Your task to perform on an android device: open app "Messenger Lite" (install if not already installed) Image 0: 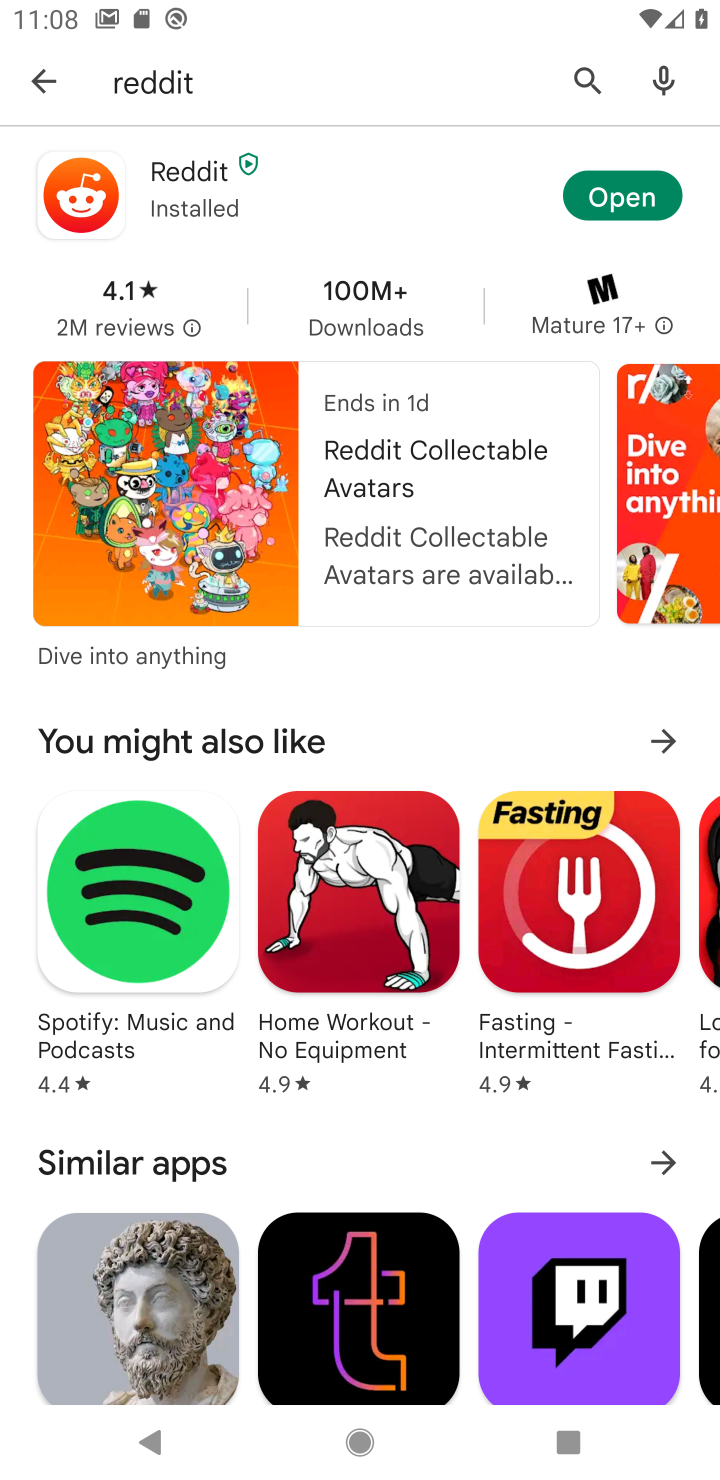
Step 0: press back button
Your task to perform on an android device: open app "Messenger Lite" (install if not already installed) Image 1: 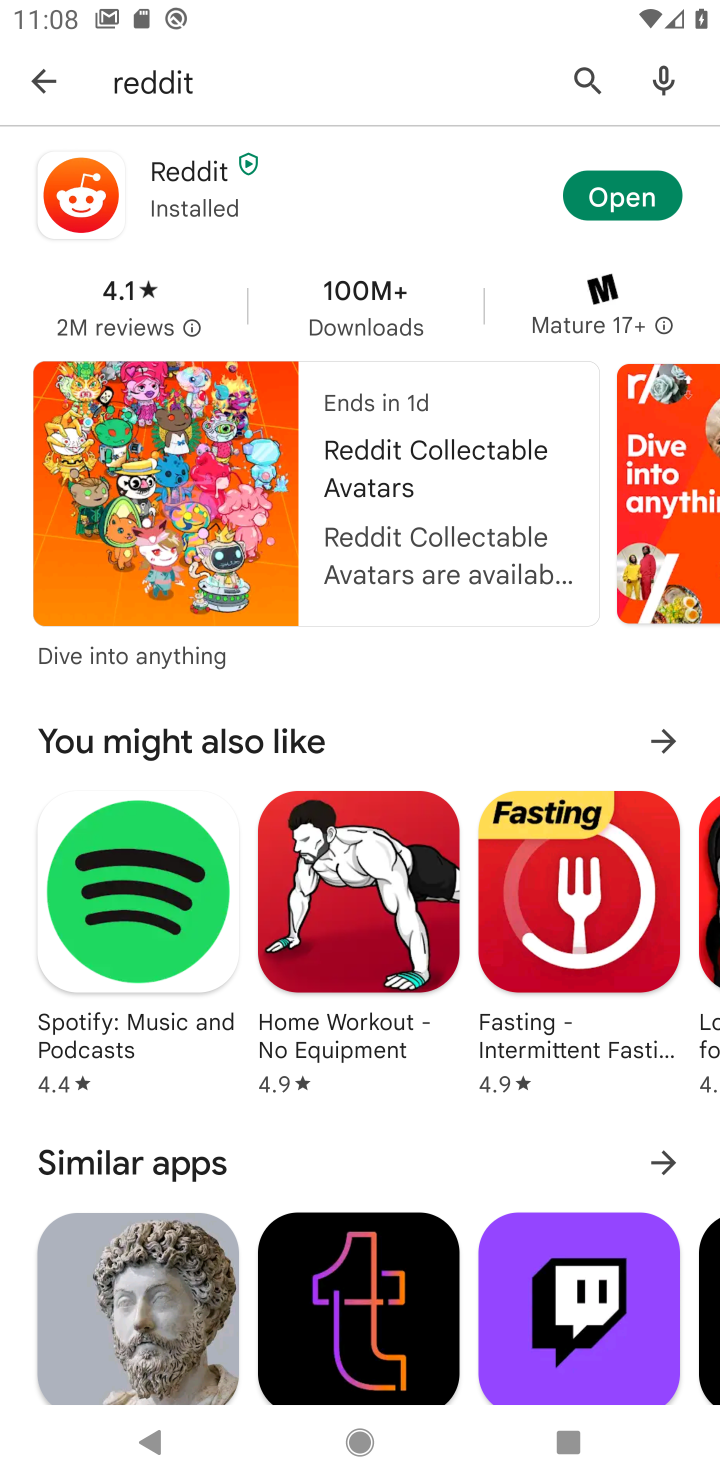
Step 1: drag from (369, 249) to (352, 139)
Your task to perform on an android device: open app "Messenger Lite" (install if not already installed) Image 2: 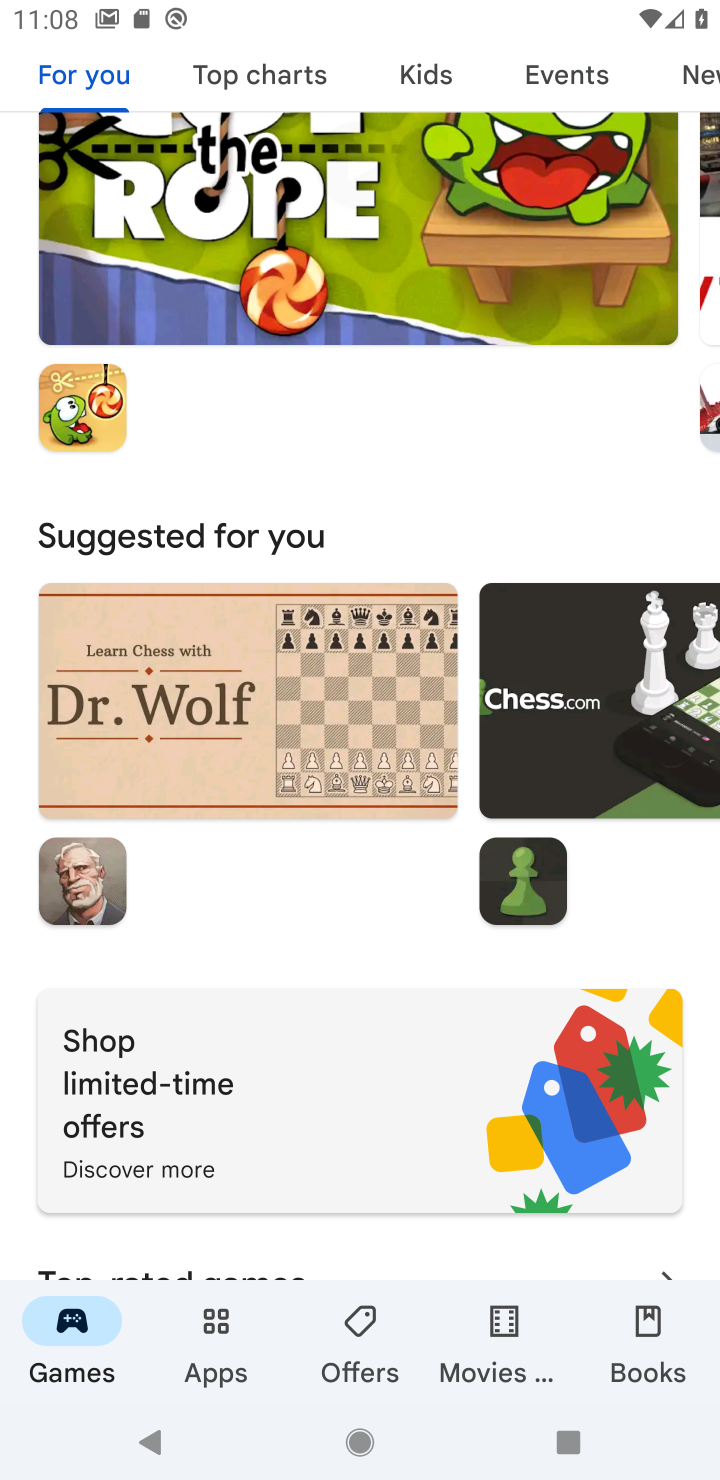
Step 2: drag from (283, 448) to (453, 1032)
Your task to perform on an android device: open app "Messenger Lite" (install if not already installed) Image 3: 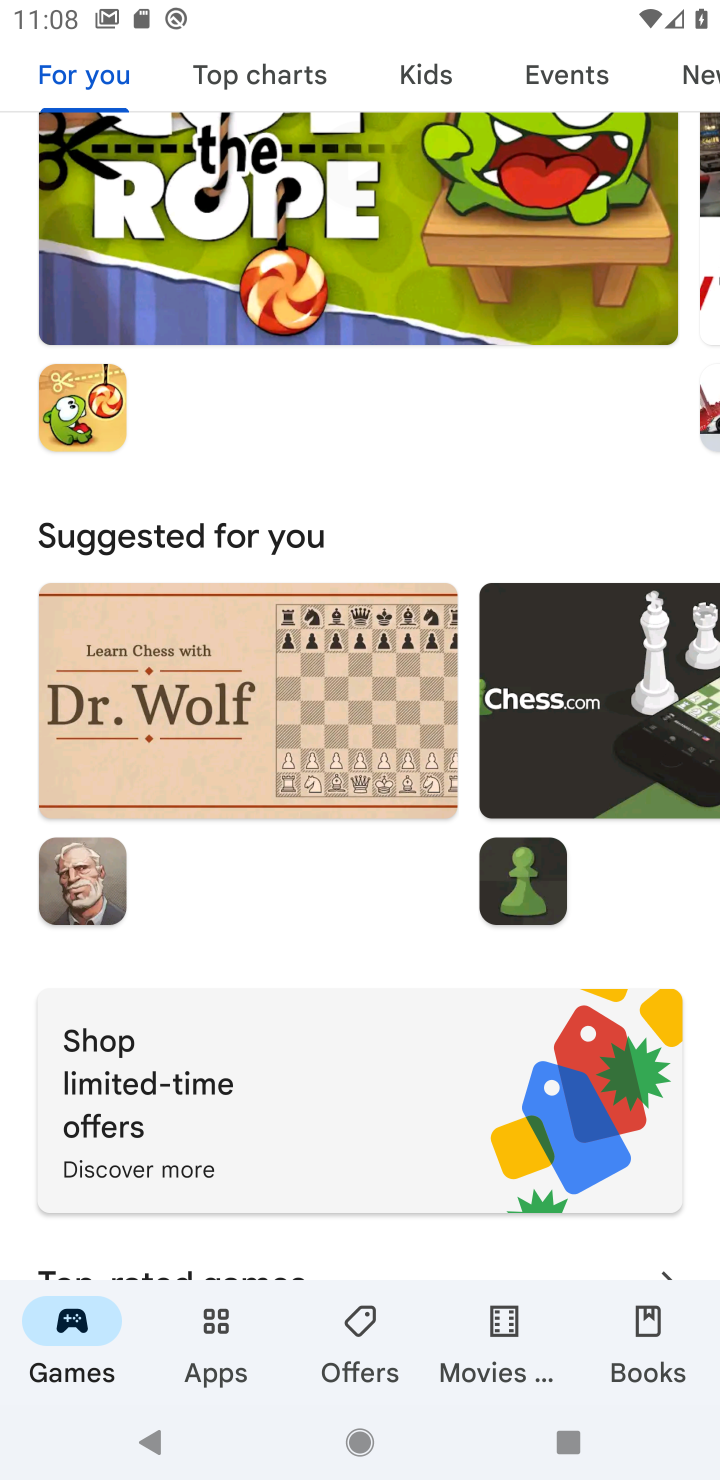
Step 3: drag from (227, 1008) to (386, 1036)
Your task to perform on an android device: open app "Messenger Lite" (install if not already installed) Image 4: 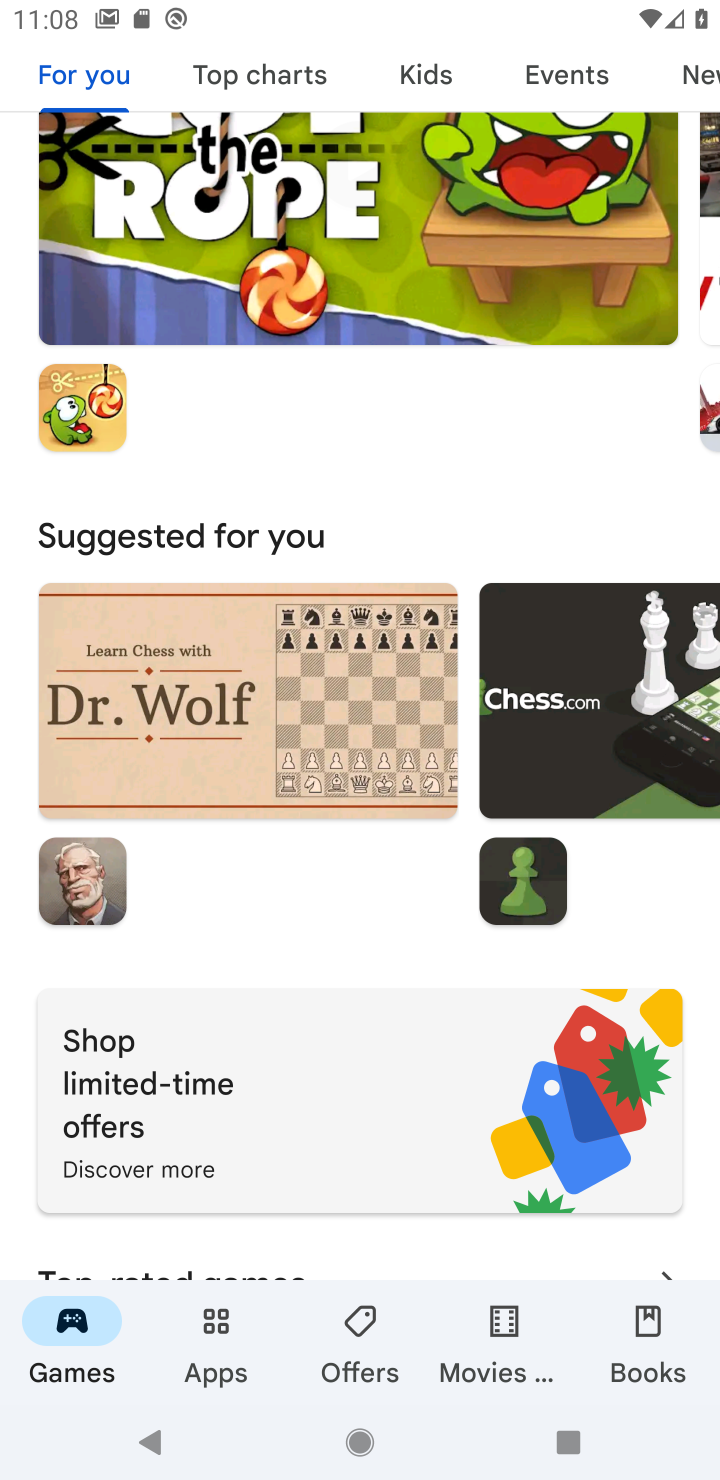
Step 4: drag from (312, 363) to (420, 1151)
Your task to perform on an android device: open app "Messenger Lite" (install if not already installed) Image 5: 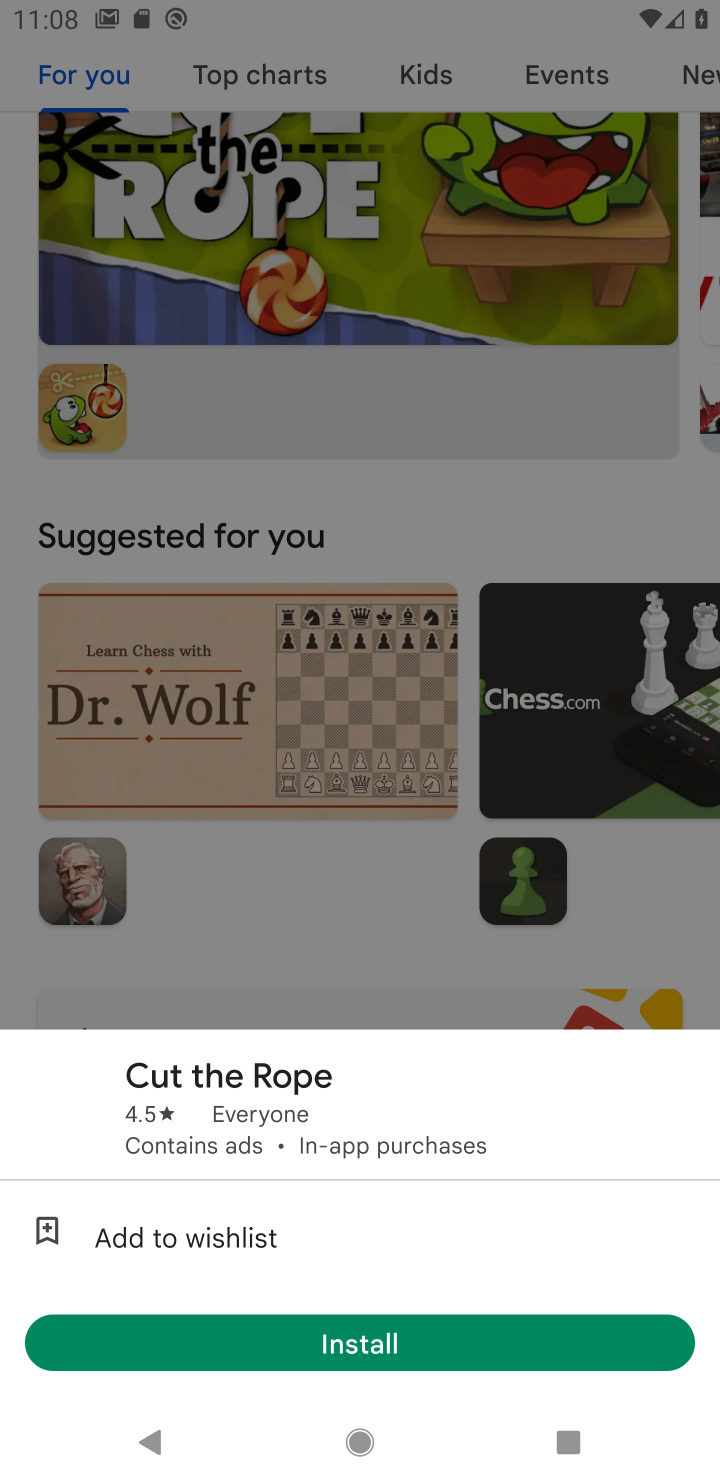
Step 5: drag from (471, 1381) to (366, 1413)
Your task to perform on an android device: open app "Messenger Lite" (install if not already installed) Image 6: 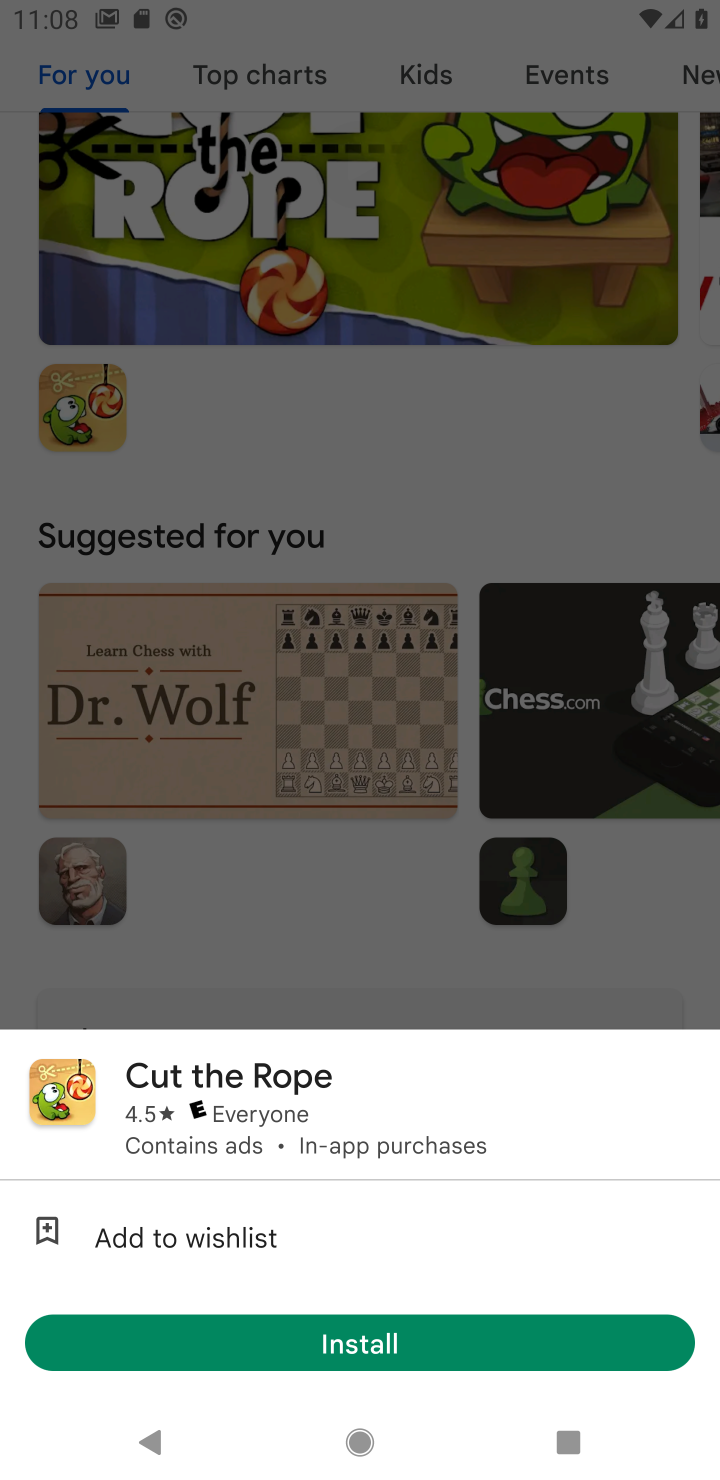
Step 6: click (227, 519)
Your task to perform on an android device: open app "Messenger Lite" (install if not already installed) Image 7: 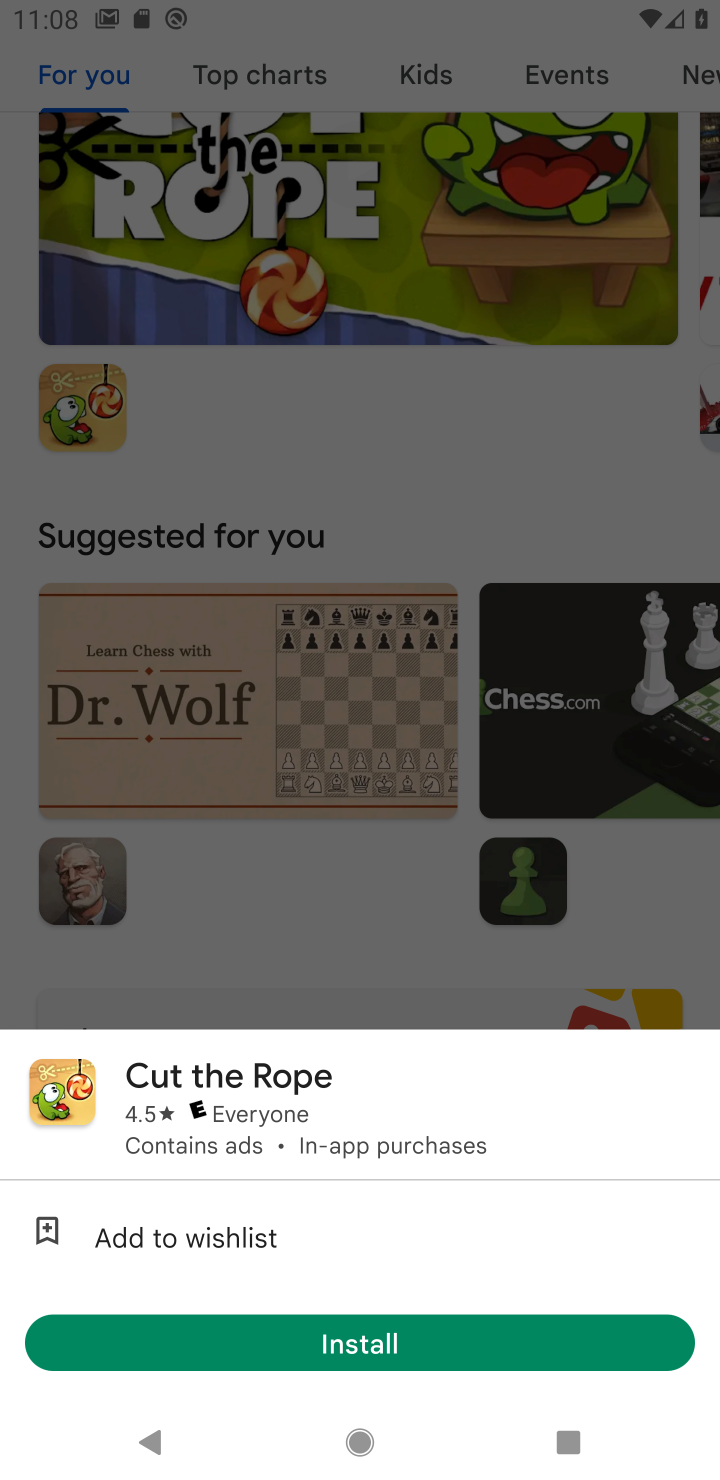
Step 7: drag from (252, 511) to (381, 993)
Your task to perform on an android device: open app "Messenger Lite" (install if not already installed) Image 8: 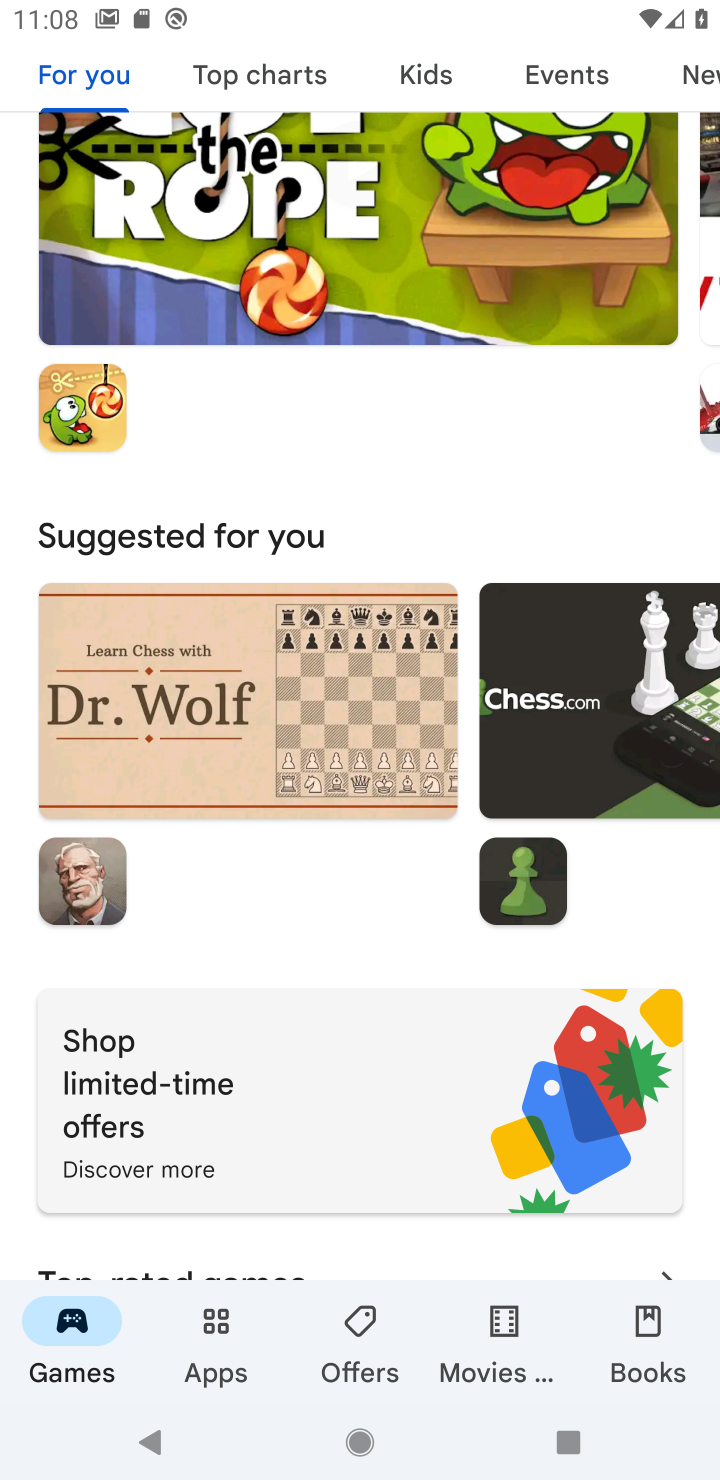
Step 8: click (429, 903)
Your task to perform on an android device: open app "Messenger Lite" (install if not already installed) Image 9: 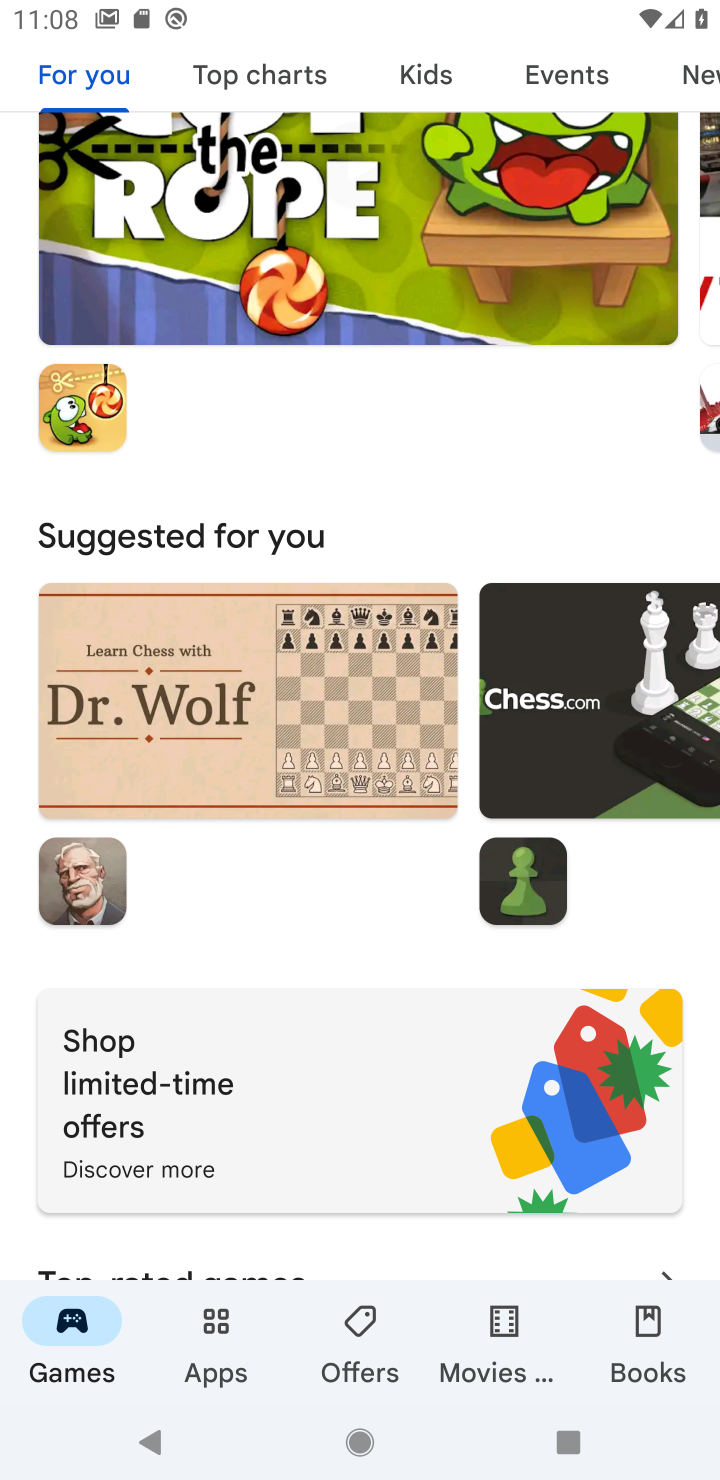
Step 9: drag from (358, 673) to (255, 865)
Your task to perform on an android device: open app "Messenger Lite" (install if not already installed) Image 10: 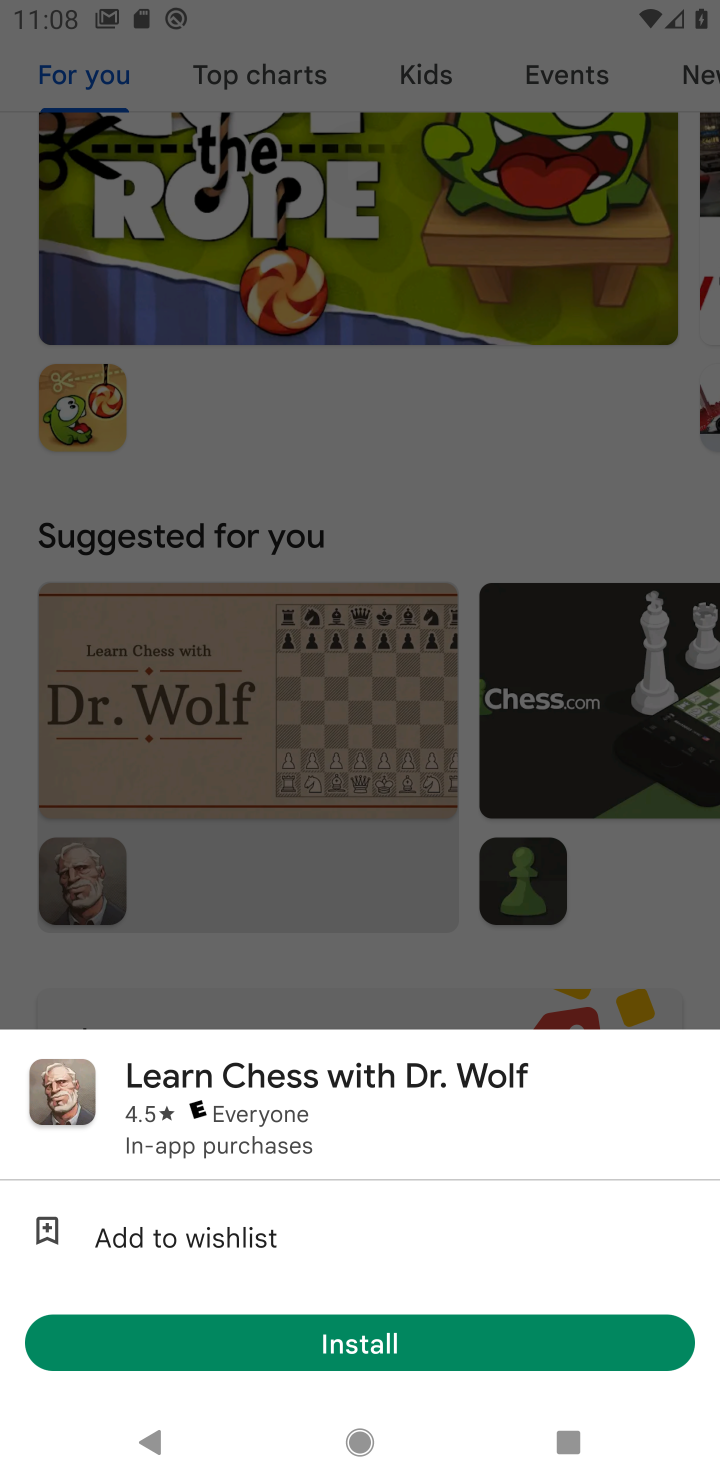
Step 10: click (221, 443)
Your task to perform on an android device: open app "Messenger Lite" (install if not already installed) Image 11: 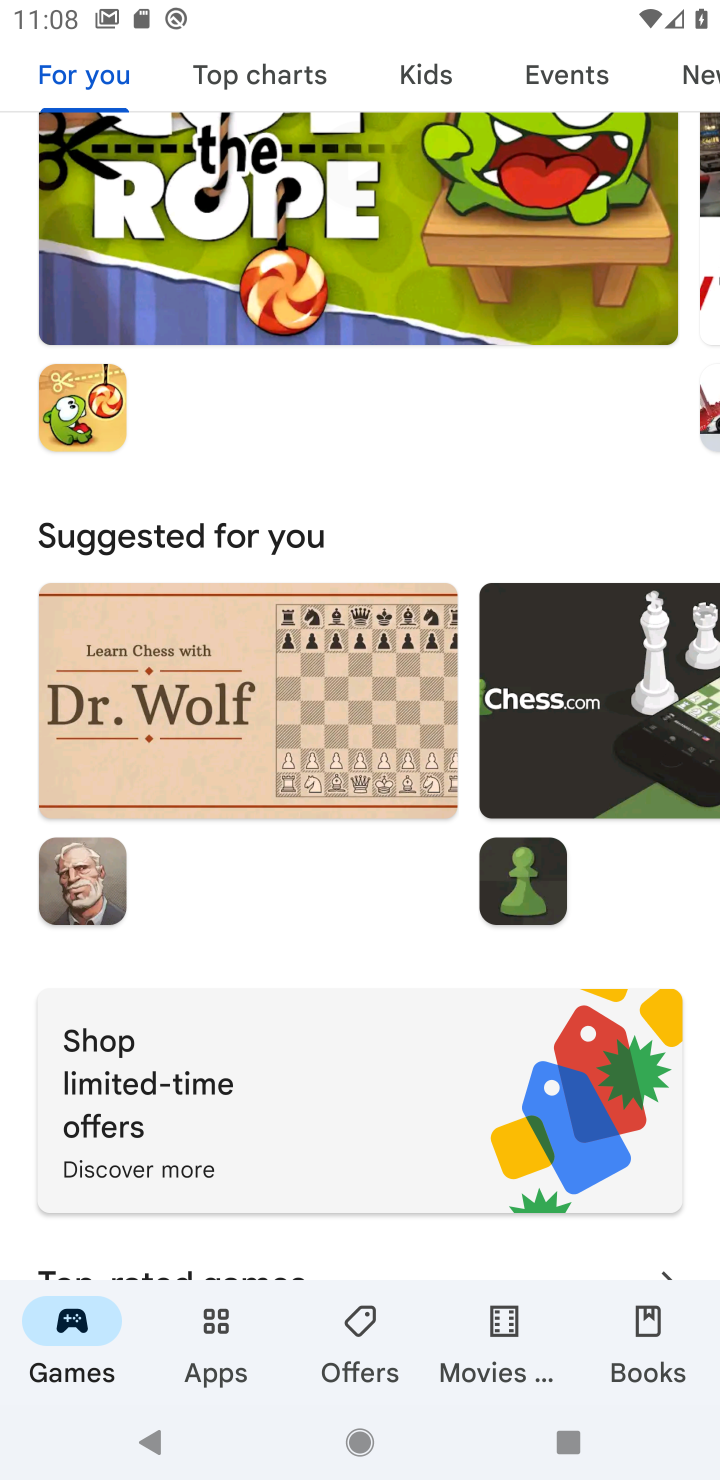
Step 11: drag from (287, 273) to (325, 746)
Your task to perform on an android device: open app "Messenger Lite" (install if not already installed) Image 12: 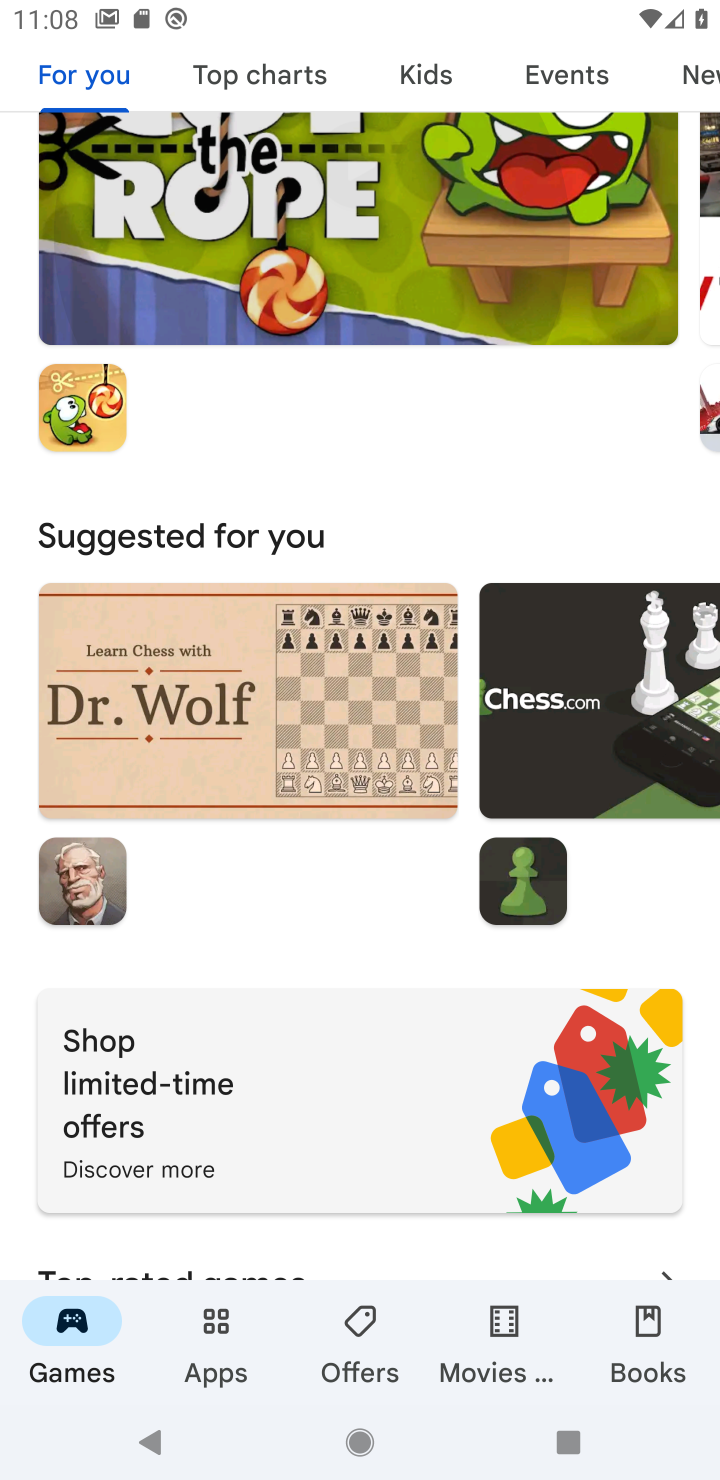
Step 12: drag from (217, 397) to (309, 728)
Your task to perform on an android device: open app "Messenger Lite" (install if not already installed) Image 13: 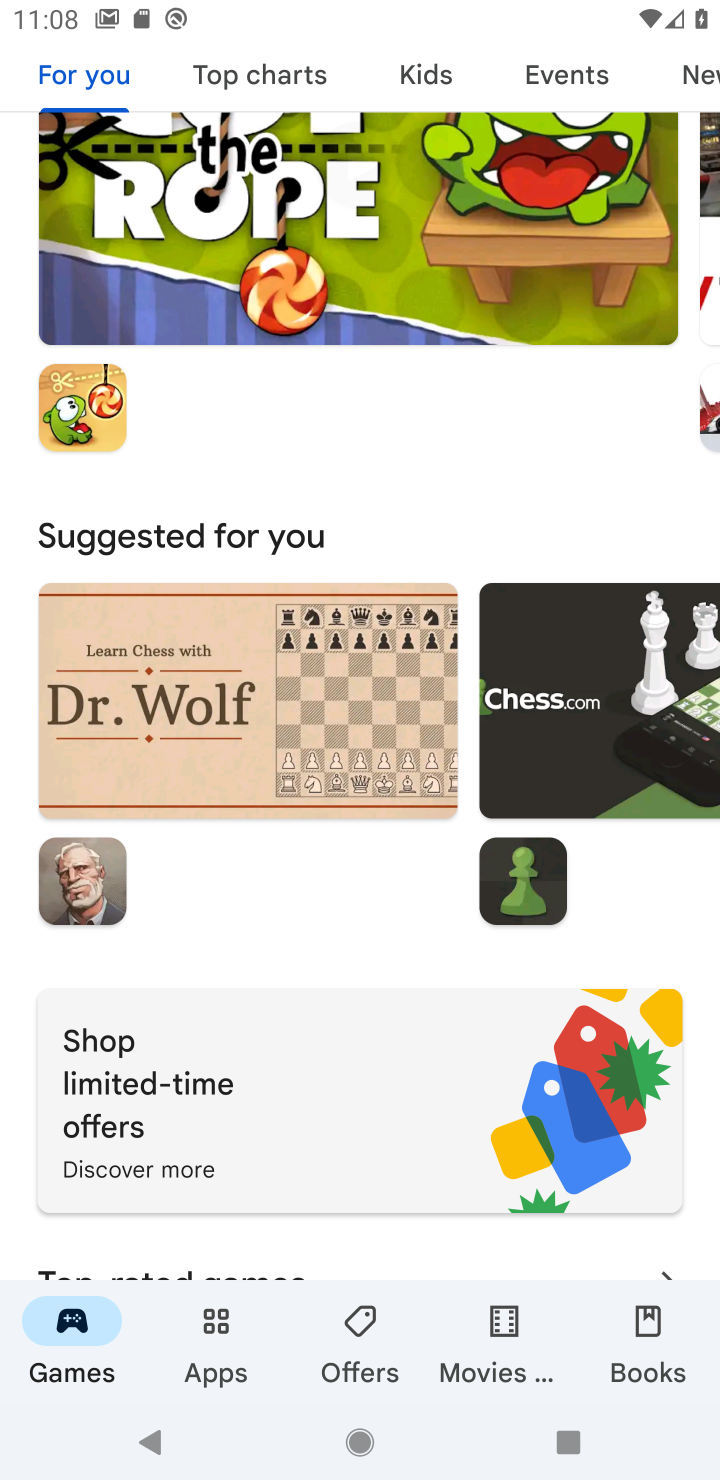
Step 13: drag from (189, 959) to (280, 1002)
Your task to perform on an android device: open app "Messenger Lite" (install if not already installed) Image 14: 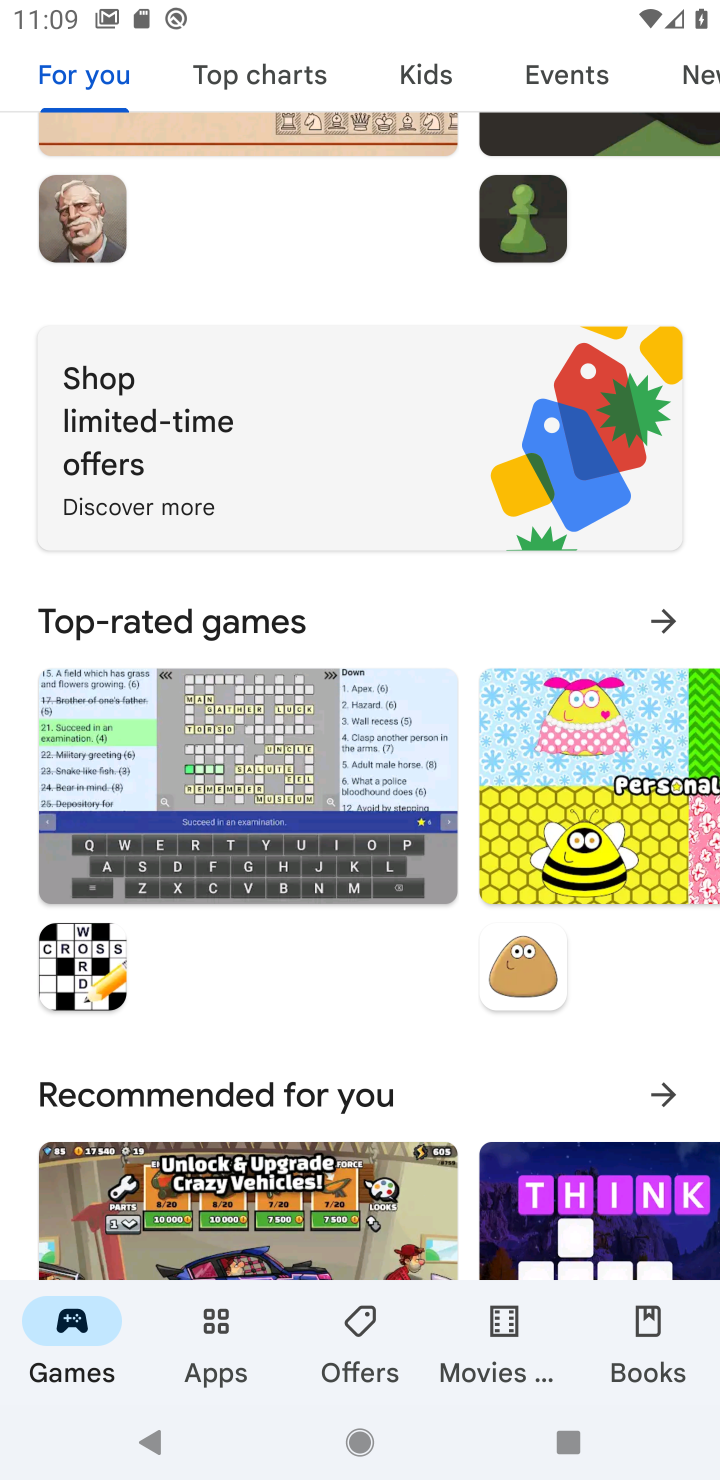
Step 14: drag from (160, 766) to (218, 1020)
Your task to perform on an android device: open app "Messenger Lite" (install if not already installed) Image 15: 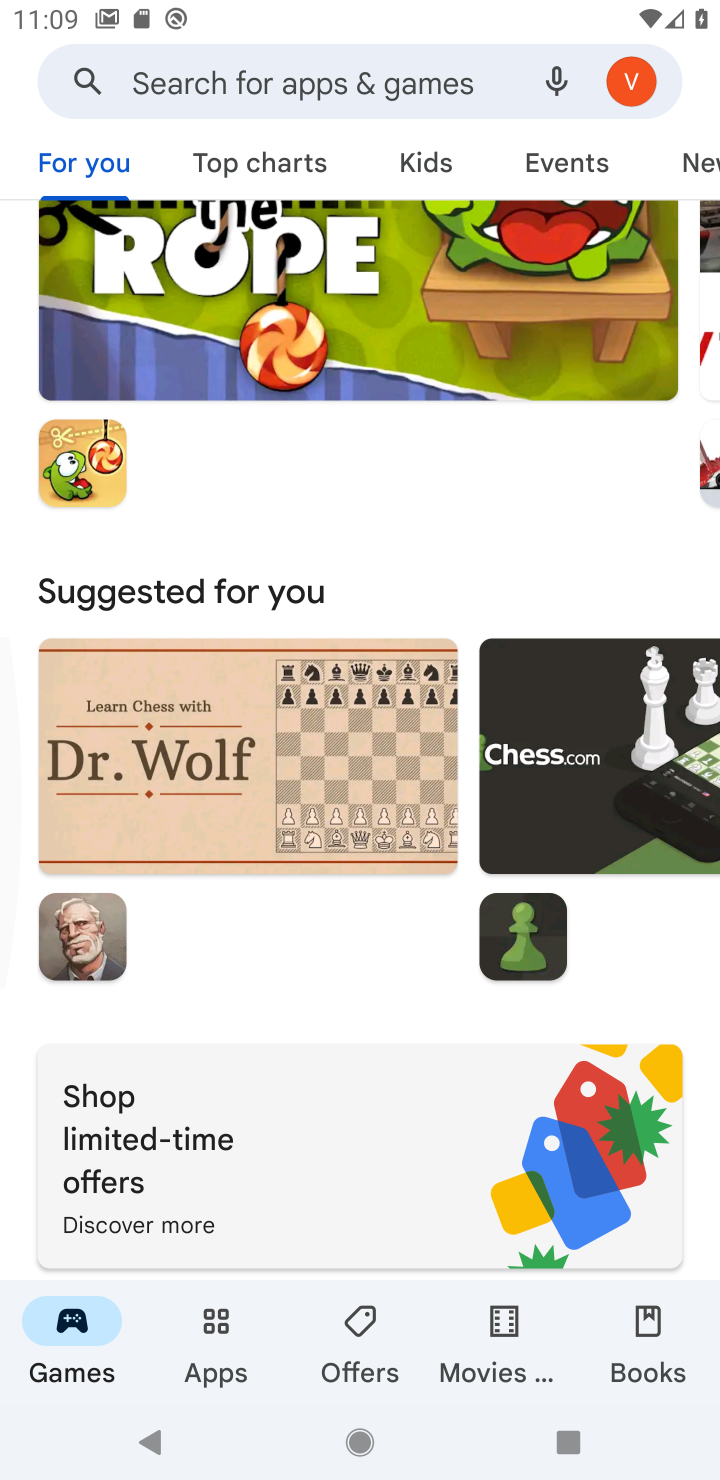
Step 15: click (192, 918)
Your task to perform on an android device: open app "Messenger Lite" (install if not already installed) Image 16: 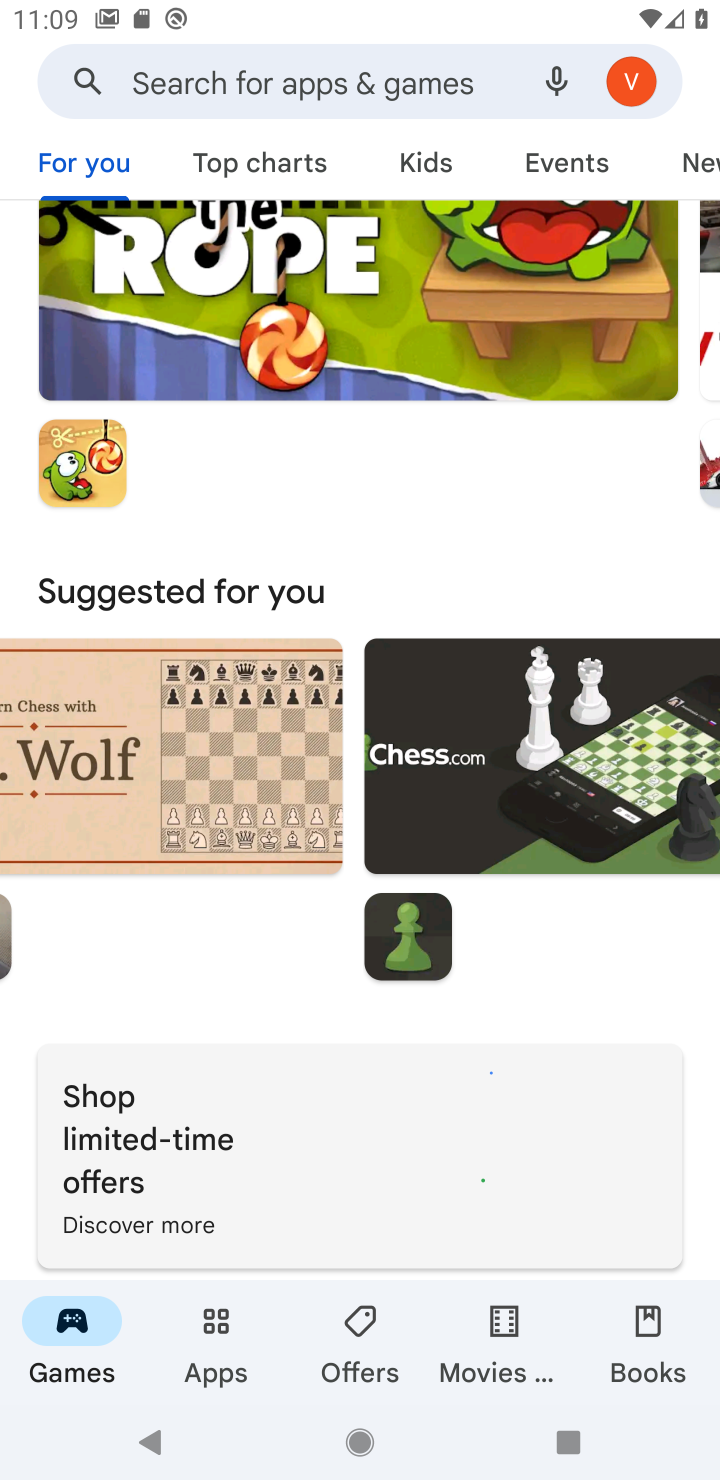
Step 16: click (177, 74)
Your task to perform on an android device: open app "Messenger Lite" (install if not already installed) Image 17: 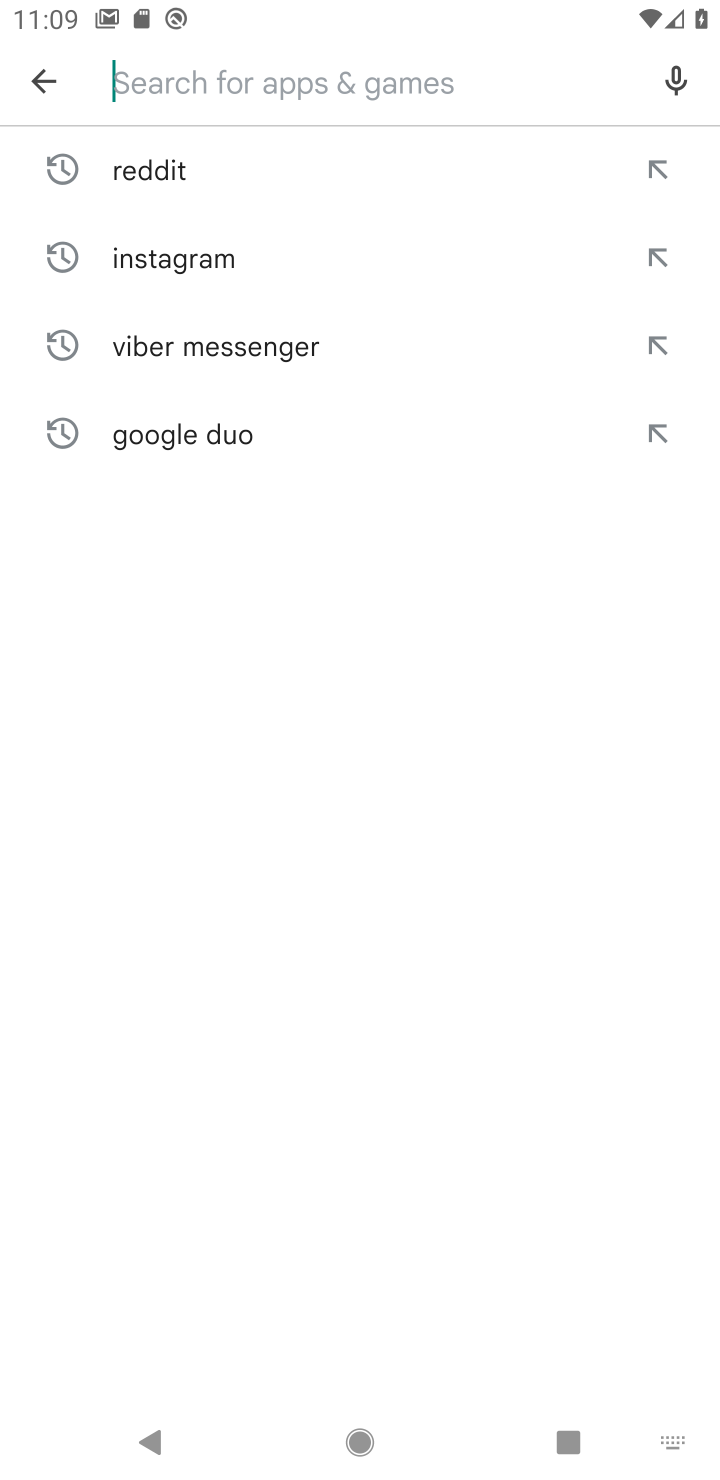
Step 17: click (203, 76)
Your task to perform on an android device: open app "Messenger Lite" (install if not already installed) Image 18: 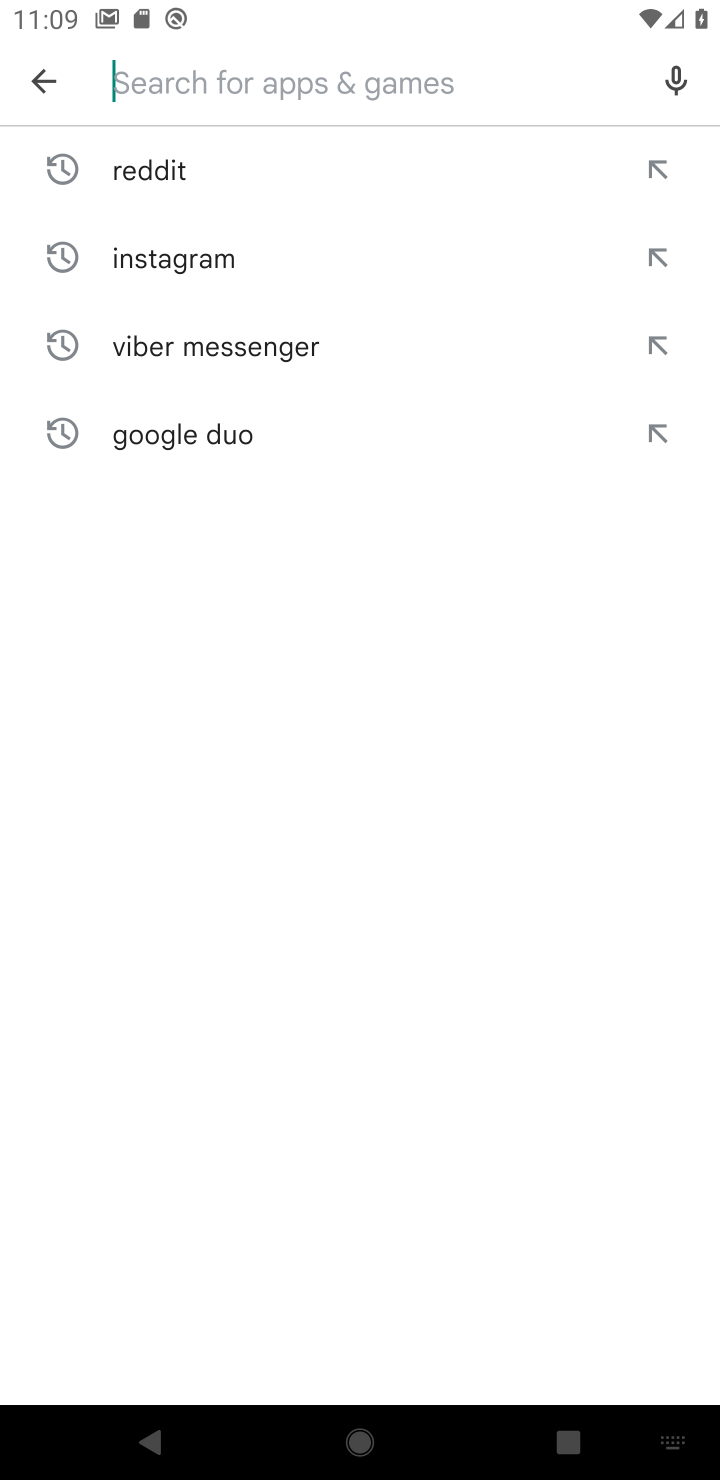
Step 18: type "messenger"
Your task to perform on an android device: open app "Messenger Lite" (install if not already installed) Image 19: 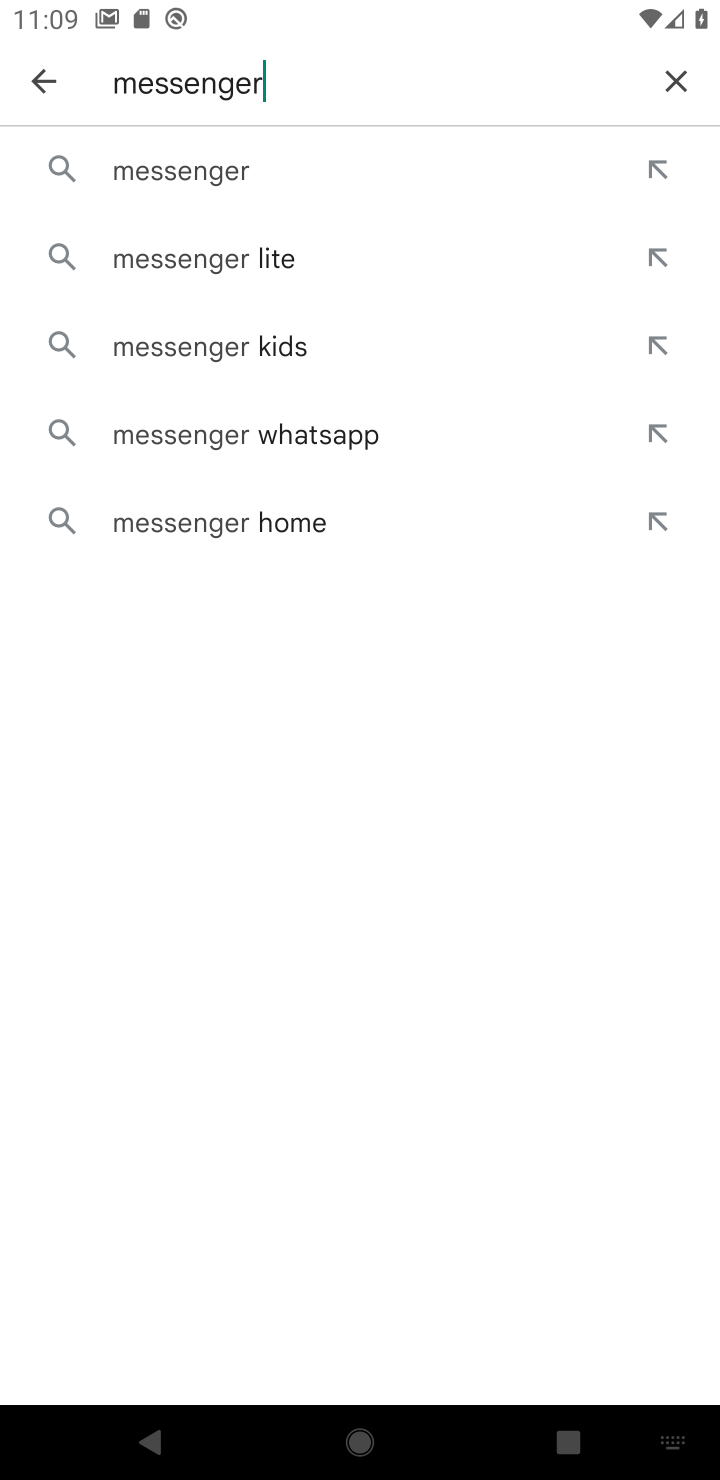
Step 19: click (204, 248)
Your task to perform on an android device: open app "Messenger Lite" (install if not already installed) Image 20: 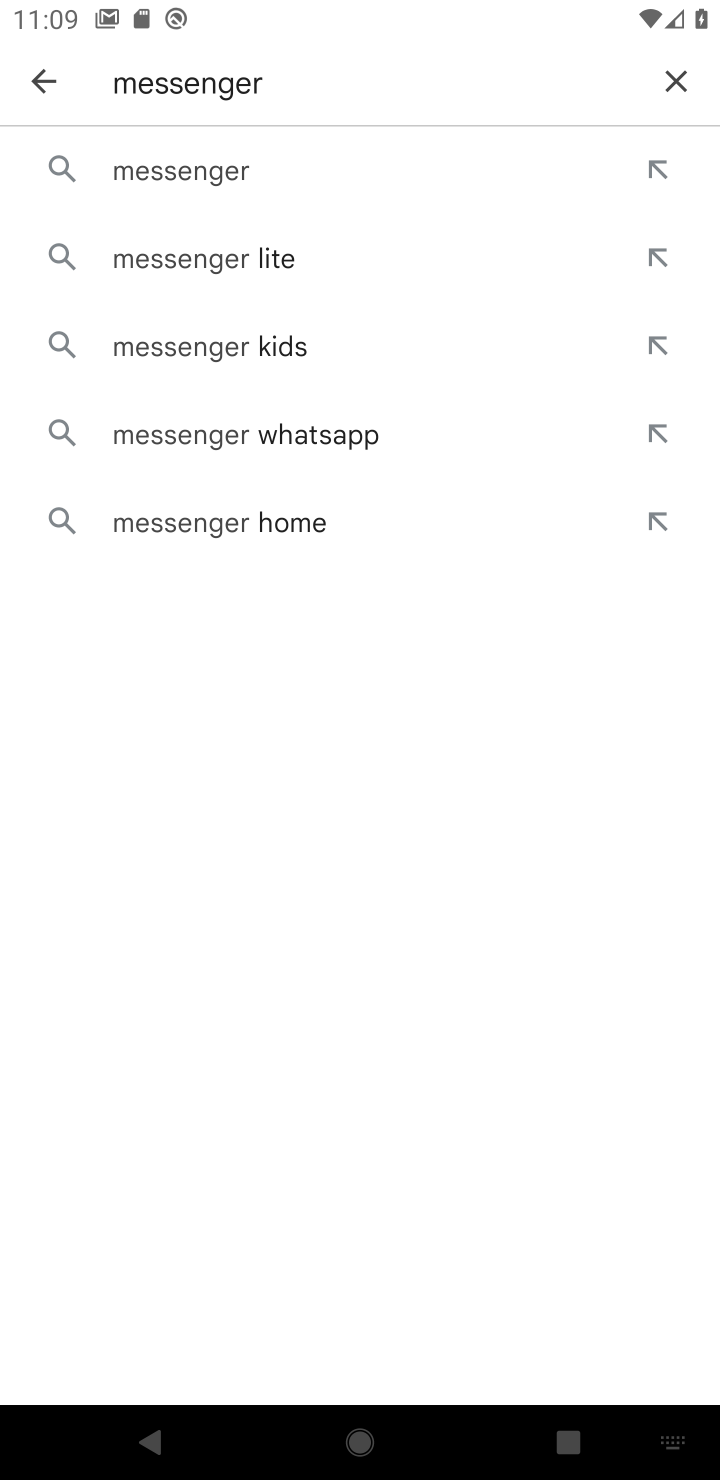
Step 20: click (210, 248)
Your task to perform on an android device: open app "Messenger Lite" (install if not already installed) Image 21: 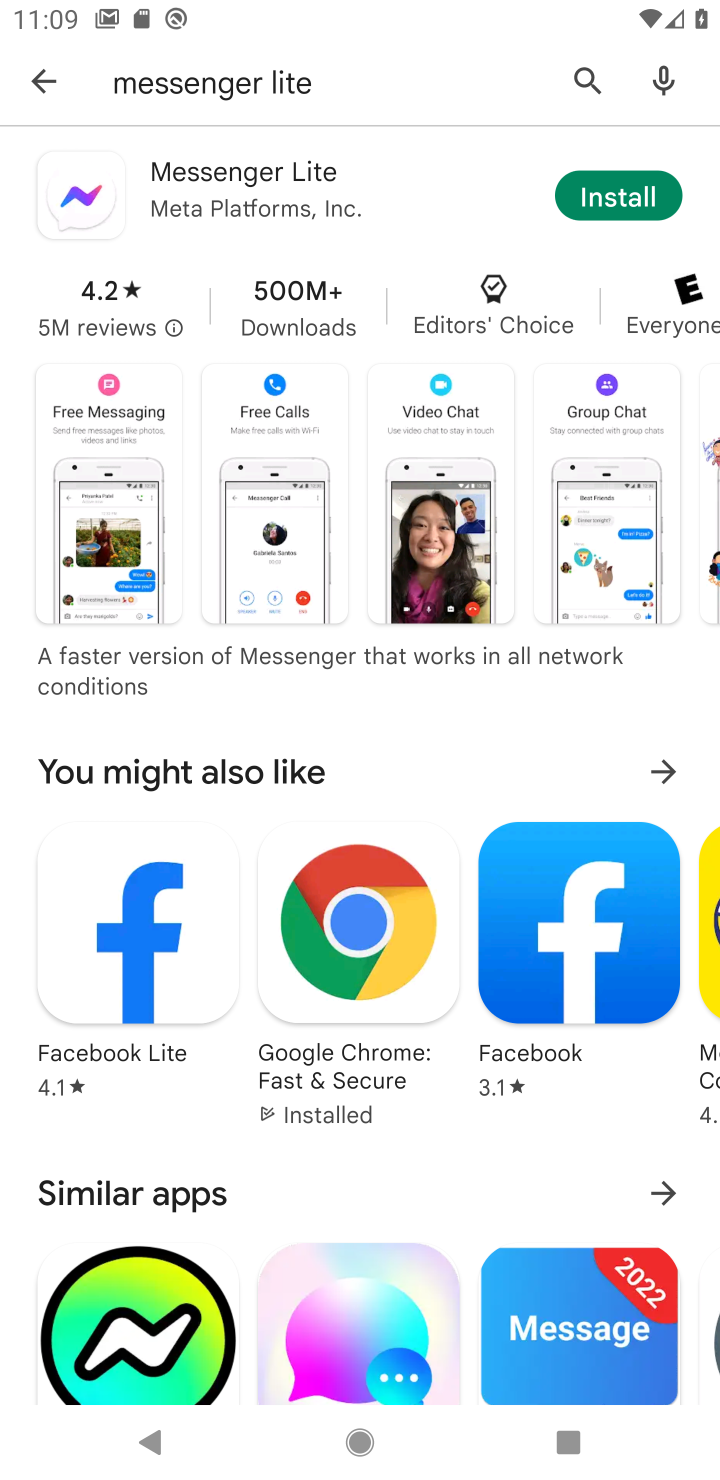
Step 21: click (600, 200)
Your task to perform on an android device: open app "Messenger Lite" (install if not already installed) Image 22: 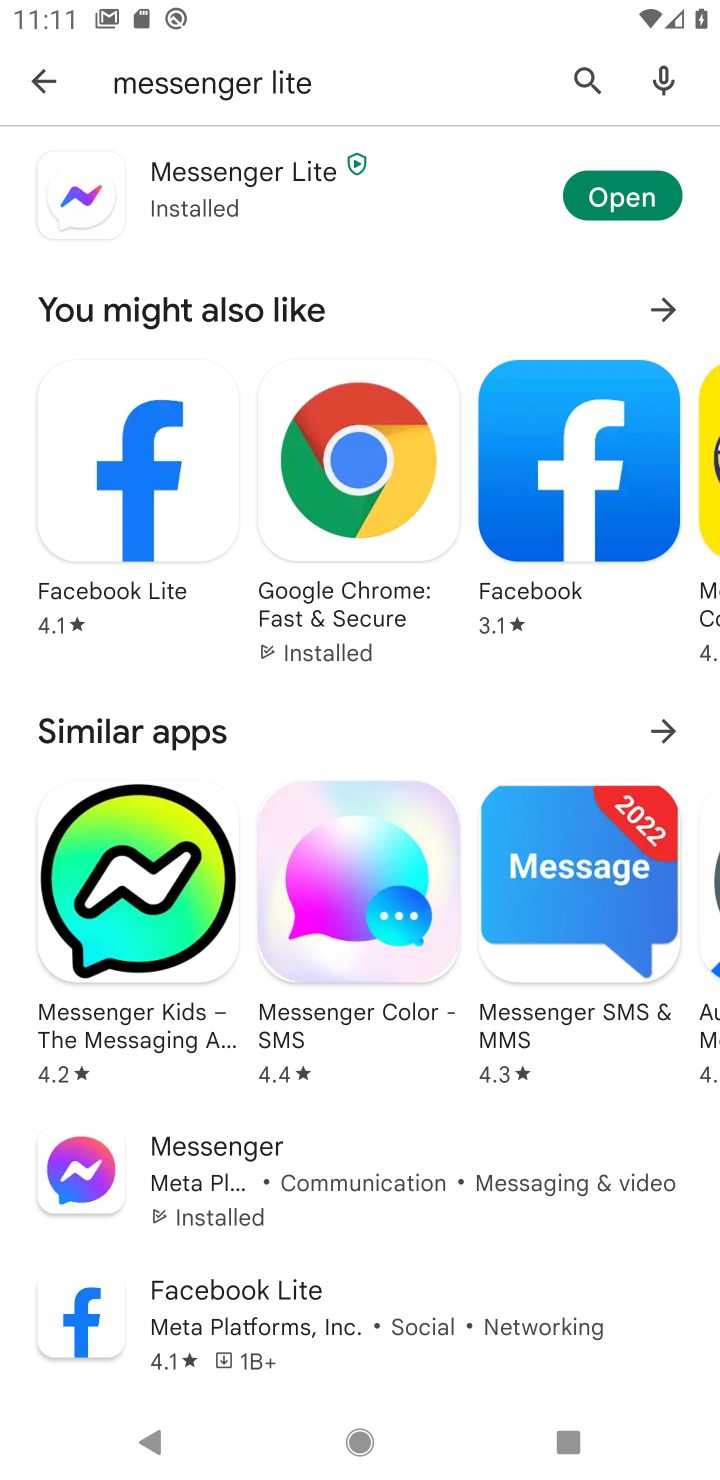
Step 22: click (633, 194)
Your task to perform on an android device: open app "Messenger Lite" (install if not already installed) Image 23: 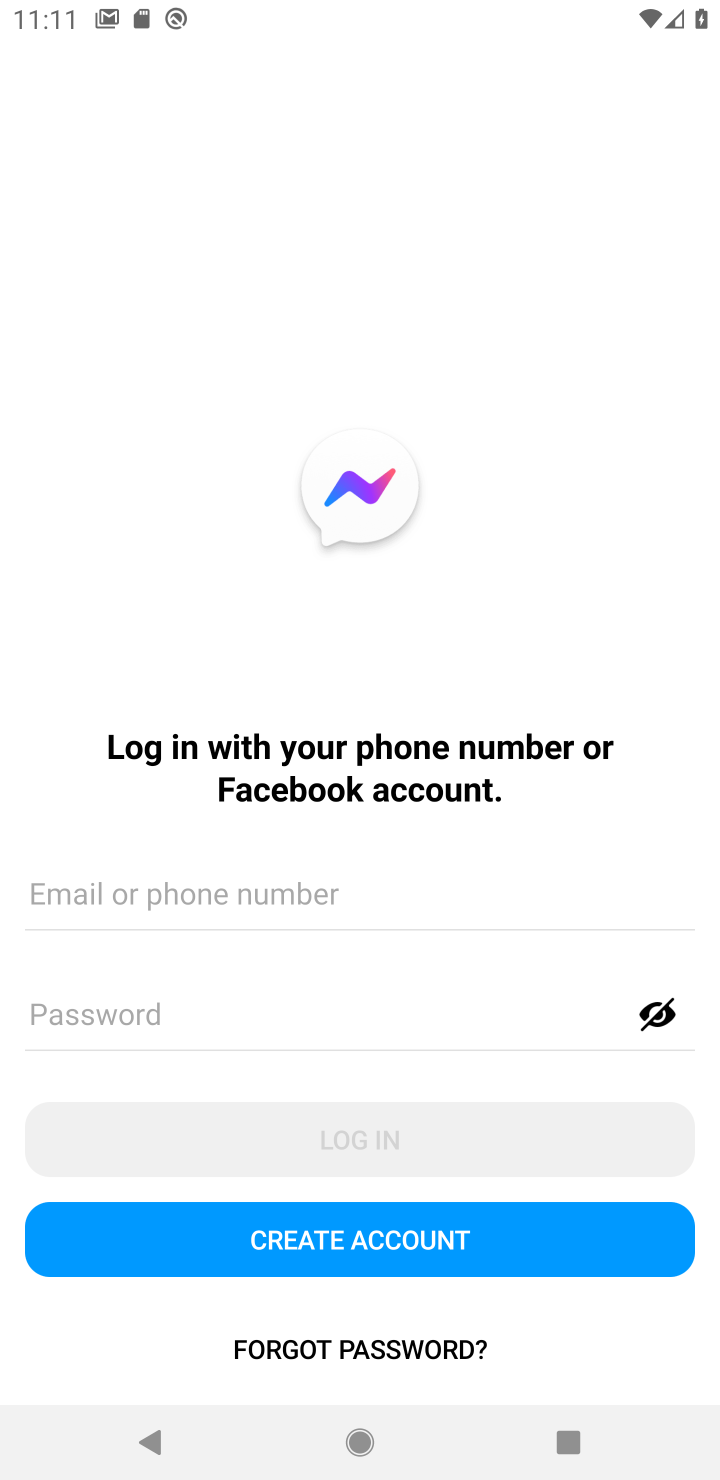
Step 23: press back button
Your task to perform on an android device: open app "Messenger Lite" (install if not already installed) Image 24: 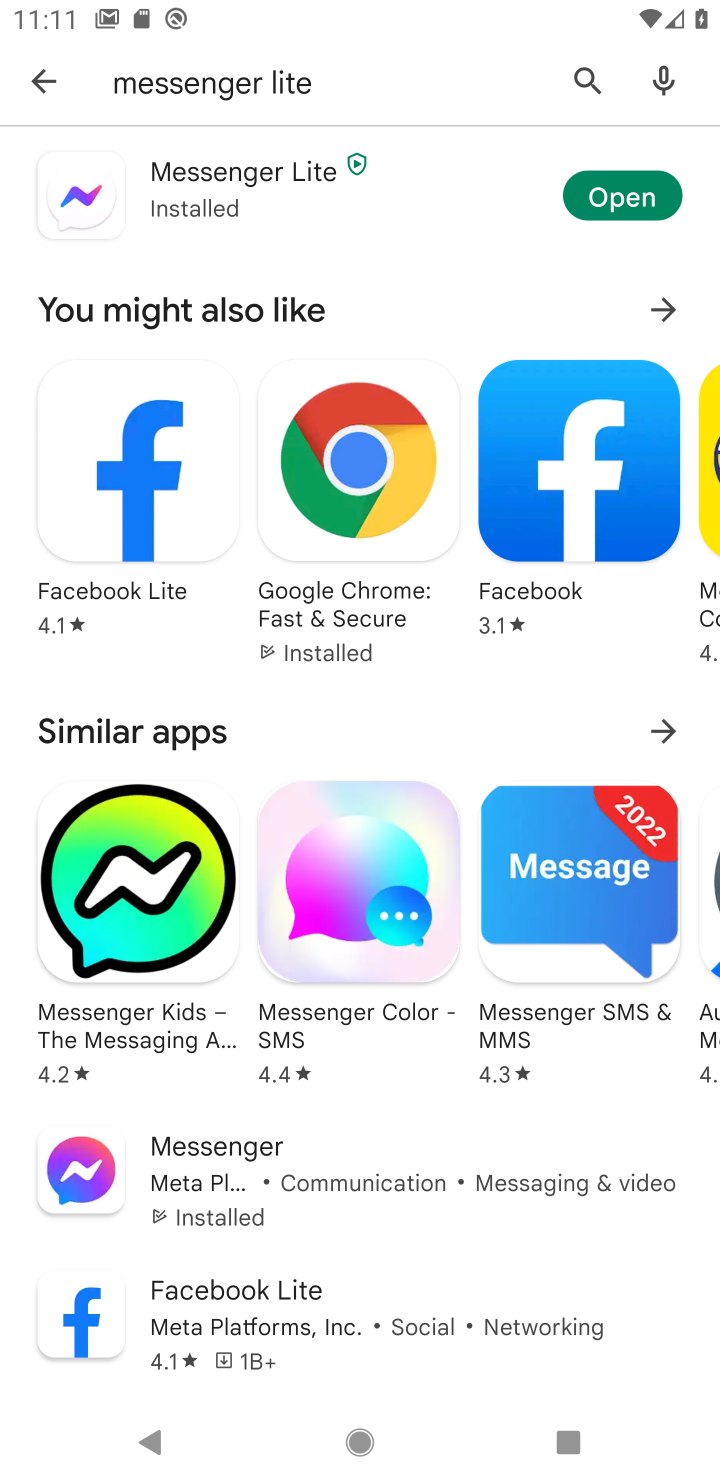
Step 24: click (637, 189)
Your task to perform on an android device: open app "Messenger Lite" (install if not already installed) Image 25: 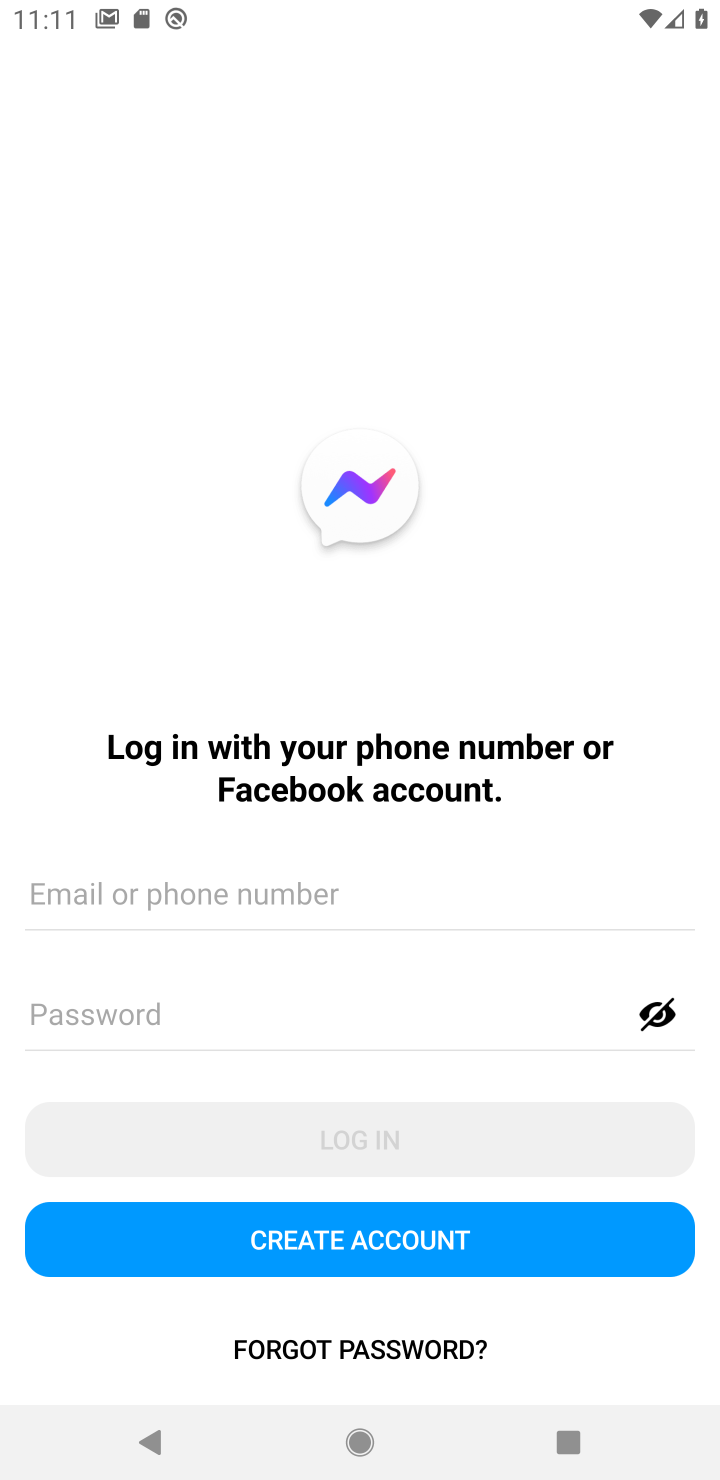
Step 25: task complete